Your task to perform on an android device: toggle priority inbox in the gmail app Image 0: 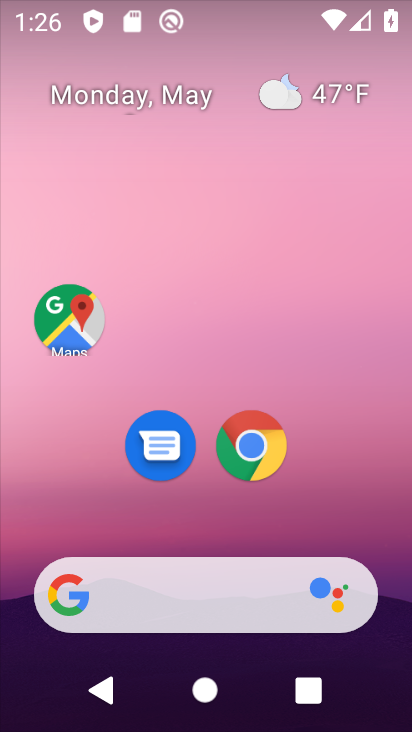
Step 0: drag from (299, 512) to (324, 39)
Your task to perform on an android device: toggle priority inbox in the gmail app Image 1: 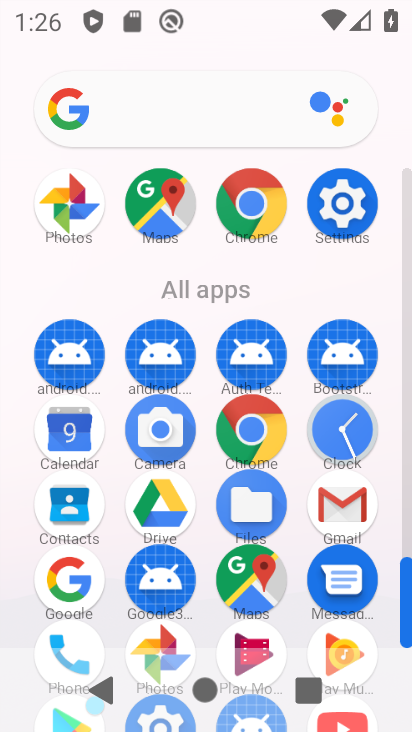
Step 1: click (338, 500)
Your task to perform on an android device: toggle priority inbox in the gmail app Image 2: 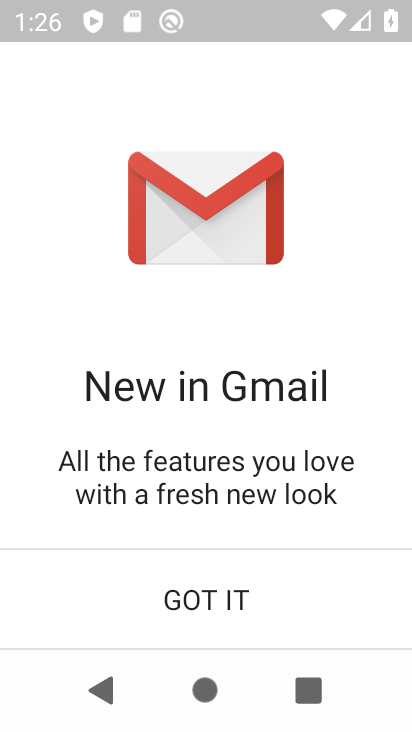
Step 2: click (221, 601)
Your task to perform on an android device: toggle priority inbox in the gmail app Image 3: 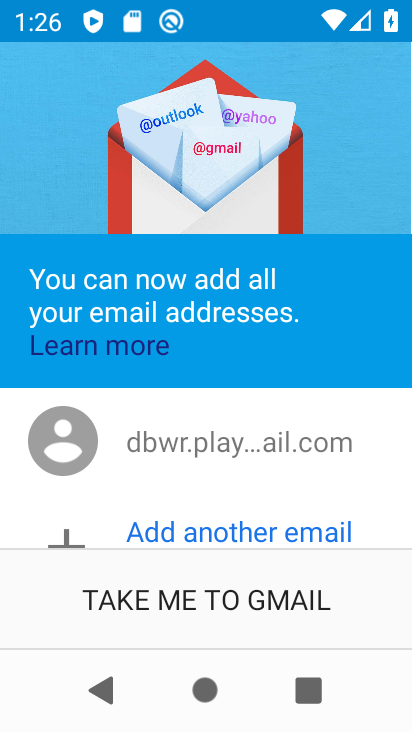
Step 3: click (231, 577)
Your task to perform on an android device: toggle priority inbox in the gmail app Image 4: 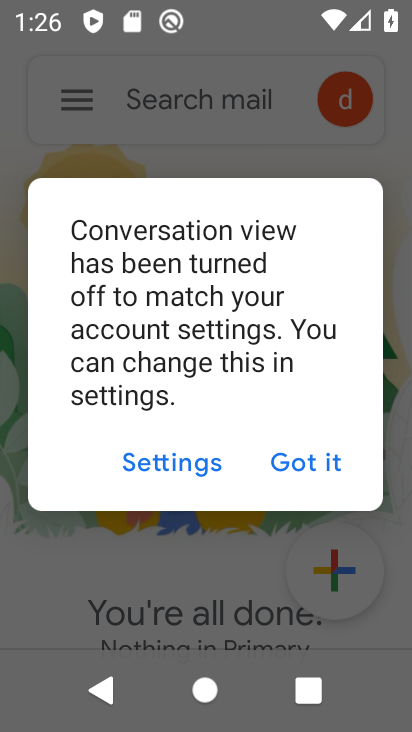
Step 4: click (310, 465)
Your task to perform on an android device: toggle priority inbox in the gmail app Image 5: 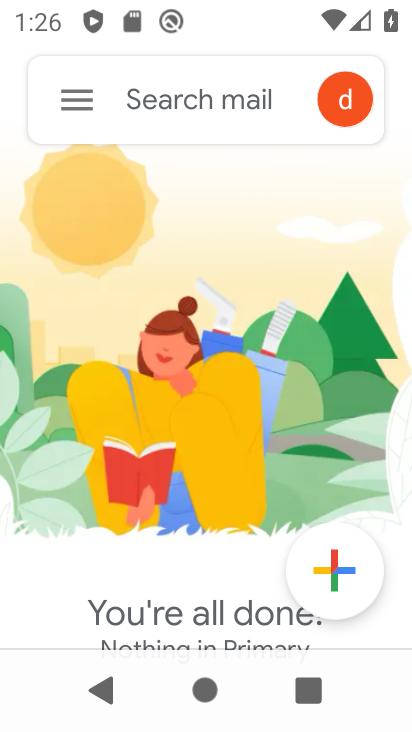
Step 5: click (68, 101)
Your task to perform on an android device: toggle priority inbox in the gmail app Image 6: 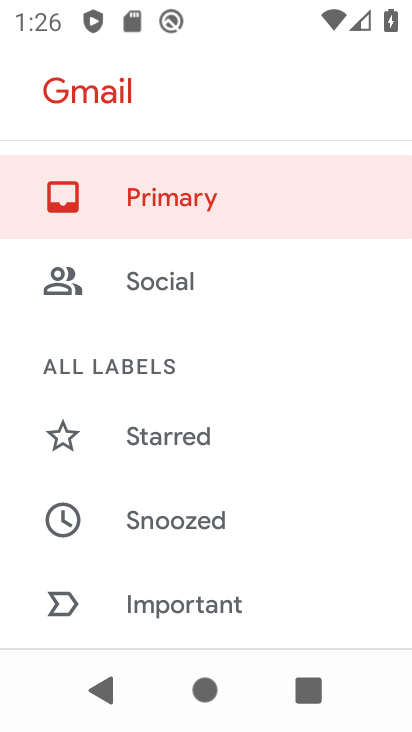
Step 6: drag from (187, 425) to (191, 224)
Your task to perform on an android device: toggle priority inbox in the gmail app Image 7: 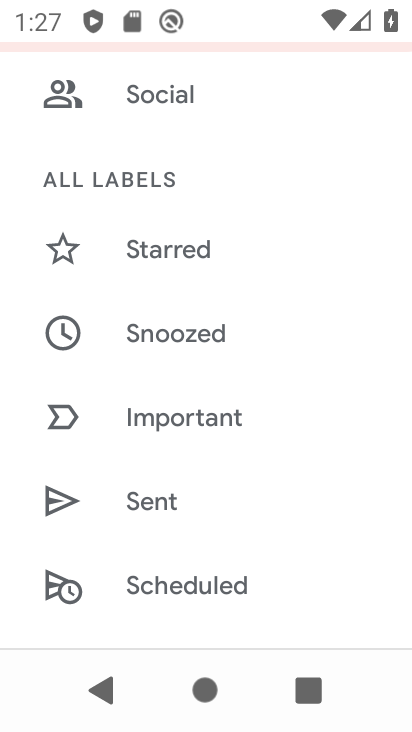
Step 7: drag from (190, 609) to (214, 200)
Your task to perform on an android device: toggle priority inbox in the gmail app Image 8: 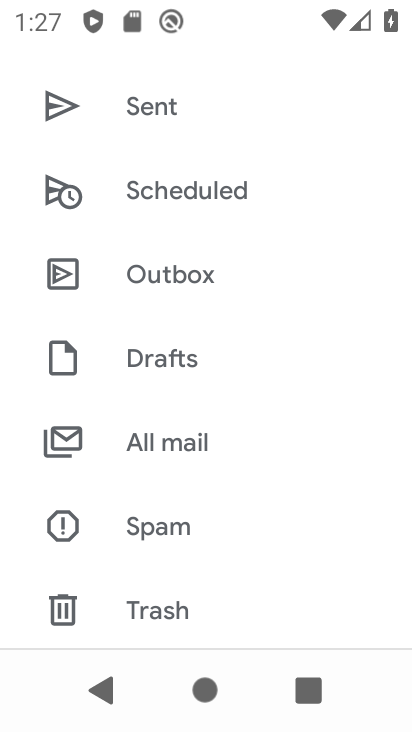
Step 8: drag from (235, 582) to (219, 202)
Your task to perform on an android device: toggle priority inbox in the gmail app Image 9: 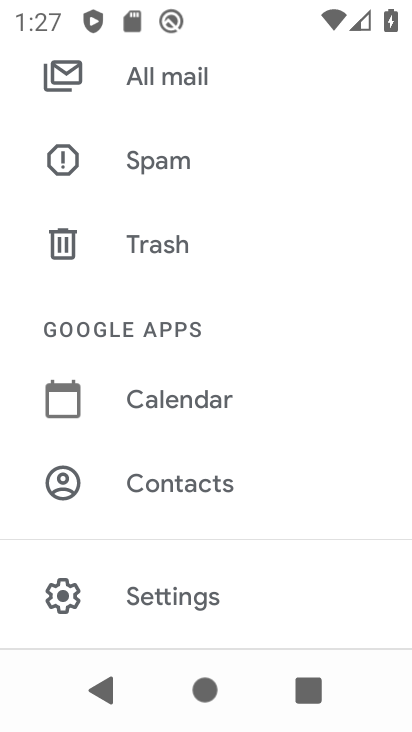
Step 9: click (224, 585)
Your task to perform on an android device: toggle priority inbox in the gmail app Image 10: 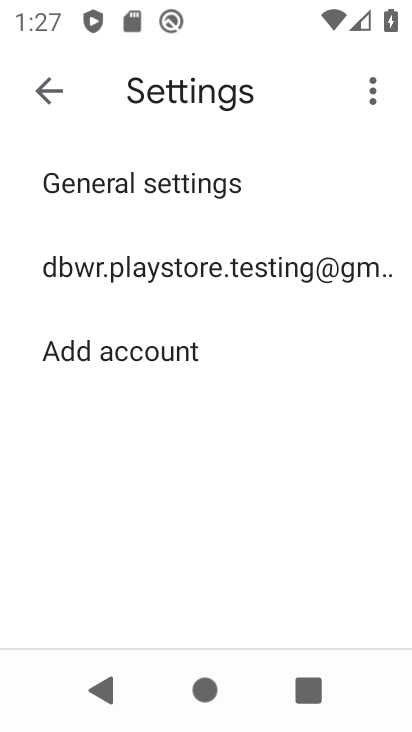
Step 10: click (243, 269)
Your task to perform on an android device: toggle priority inbox in the gmail app Image 11: 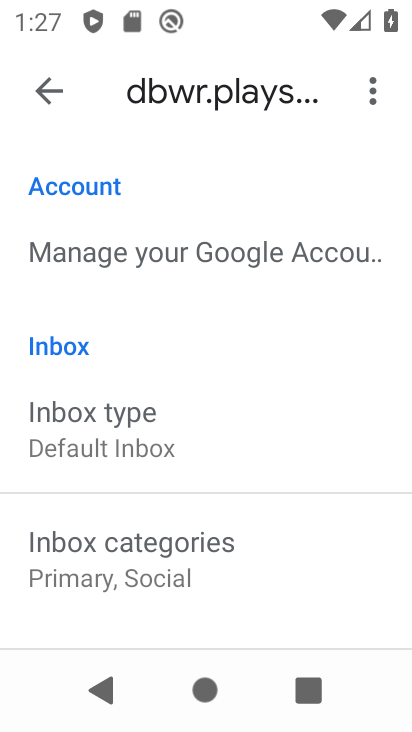
Step 11: click (155, 414)
Your task to perform on an android device: toggle priority inbox in the gmail app Image 12: 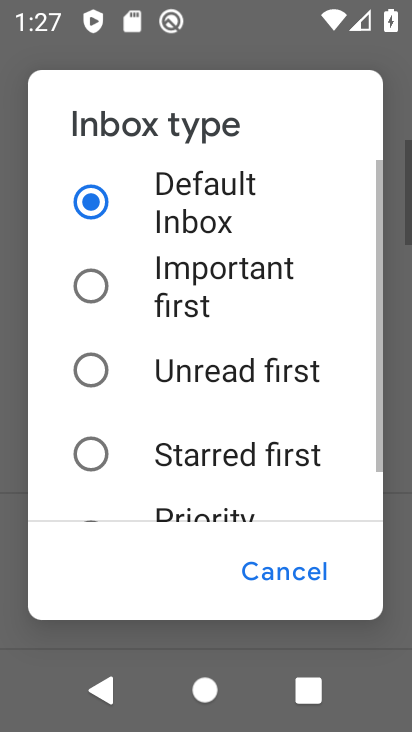
Step 12: drag from (173, 466) to (169, 156)
Your task to perform on an android device: toggle priority inbox in the gmail app Image 13: 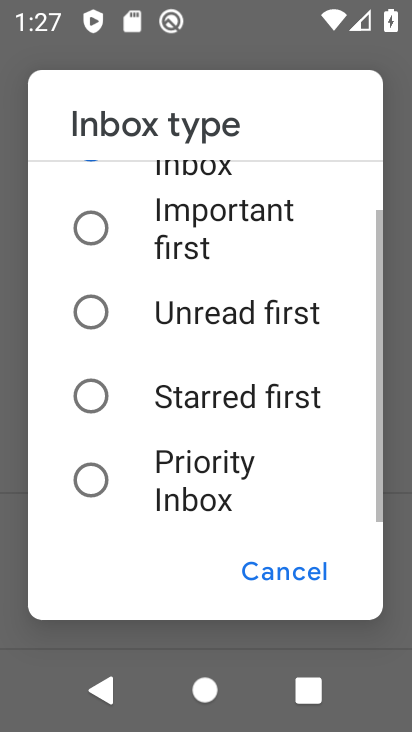
Step 13: click (166, 468)
Your task to perform on an android device: toggle priority inbox in the gmail app Image 14: 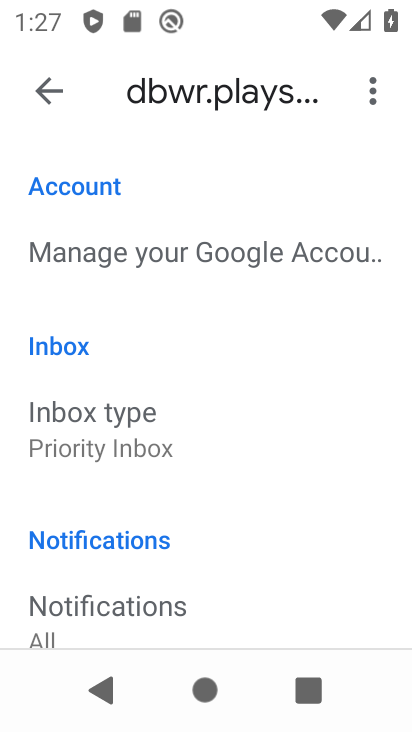
Step 14: task complete